Your task to perform on an android device: Open Maps and search for coffee Image 0: 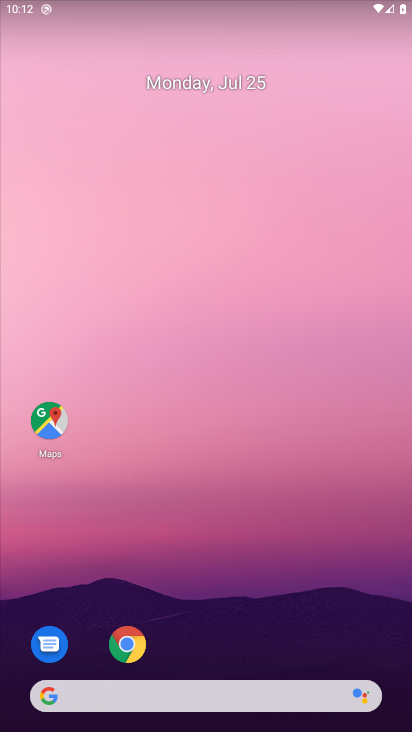
Step 0: drag from (258, 655) to (316, 80)
Your task to perform on an android device: Open Maps and search for coffee Image 1: 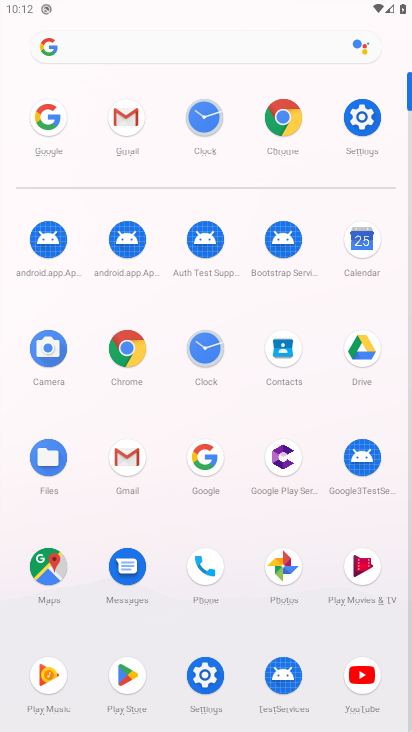
Step 1: click (45, 566)
Your task to perform on an android device: Open Maps and search for coffee Image 2: 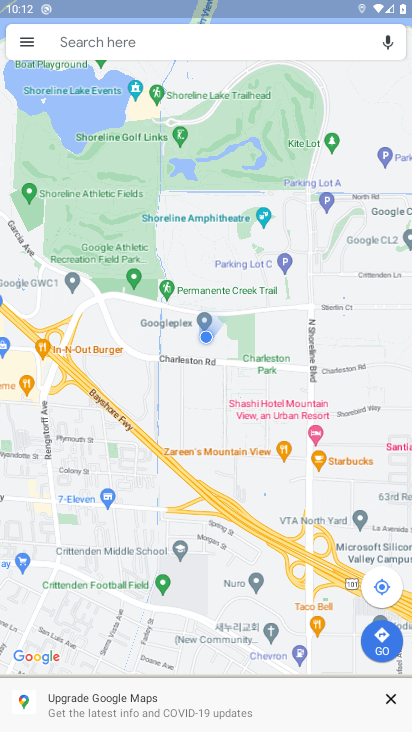
Step 2: click (266, 41)
Your task to perform on an android device: Open Maps and search for coffee Image 3: 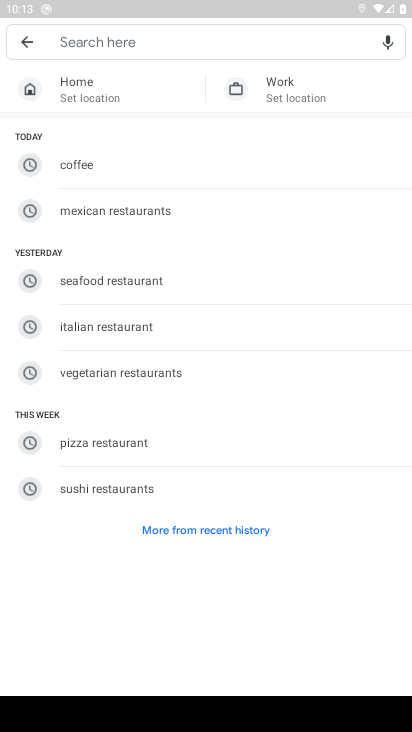
Step 3: type "coffee"
Your task to perform on an android device: Open Maps and search for coffee Image 4: 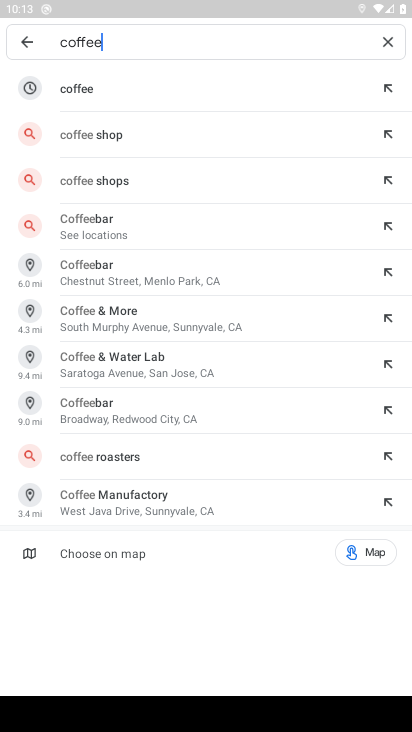
Step 4: click (112, 82)
Your task to perform on an android device: Open Maps and search for coffee Image 5: 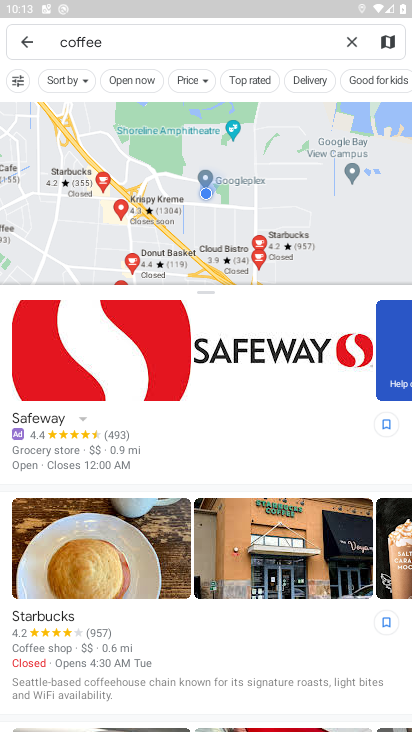
Step 5: task complete